Your task to perform on an android device: Open Android settings Image 0: 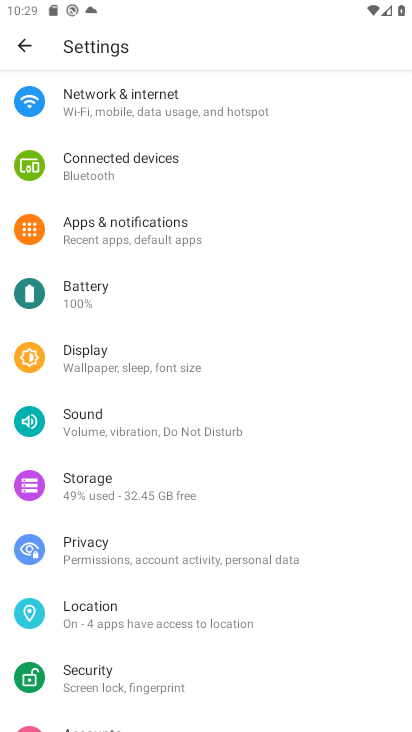
Step 0: drag from (257, 546) to (206, 92)
Your task to perform on an android device: Open Android settings Image 1: 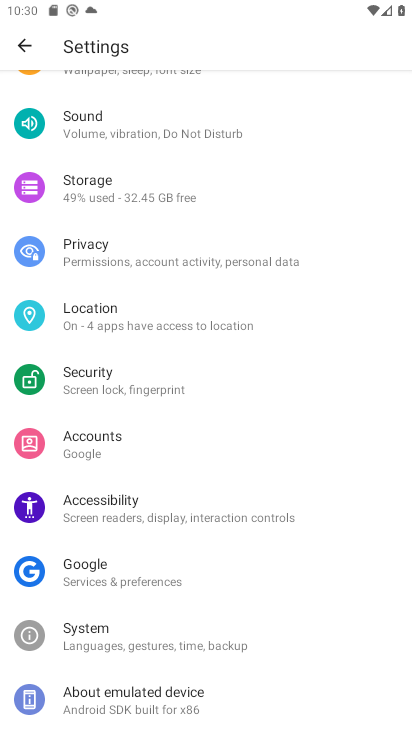
Step 1: task complete